Your task to perform on an android device: Go to notification settings Image 0: 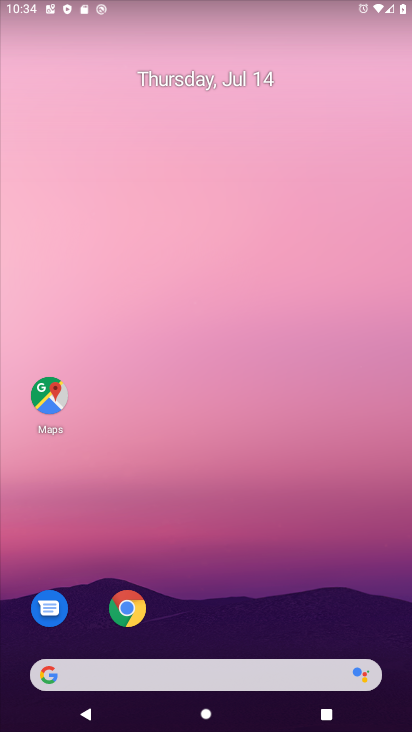
Step 0: drag from (254, 706) to (232, 285)
Your task to perform on an android device: Go to notification settings Image 1: 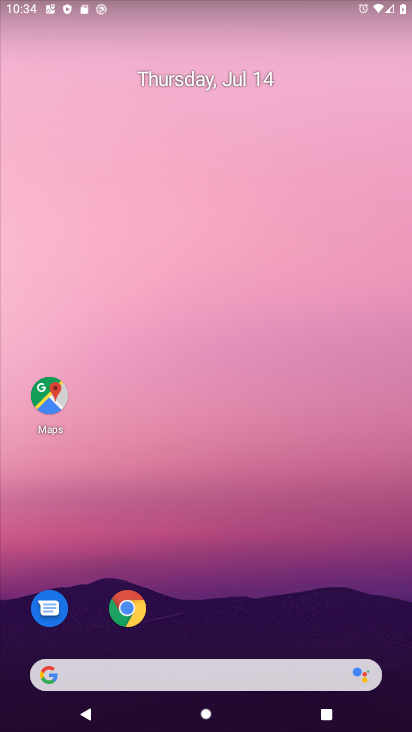
Step 1: drag from (245, 721) to (237, 186)
Your task to perform on an android device: Go to notification settings Image 2: 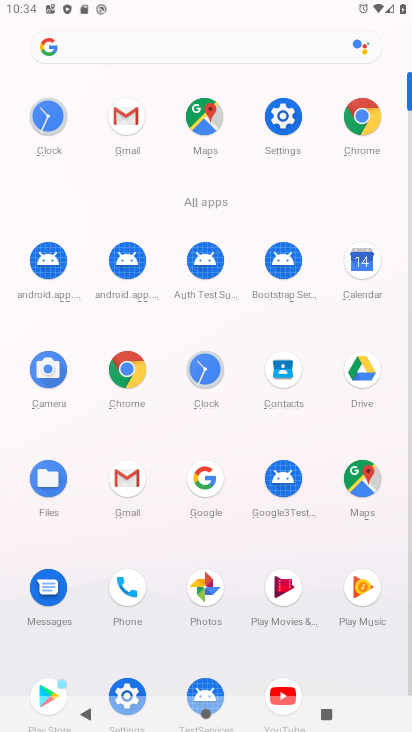
Step 2: click (288, 123)
Your task to perform on an android device: Go to notification settings Image 3: 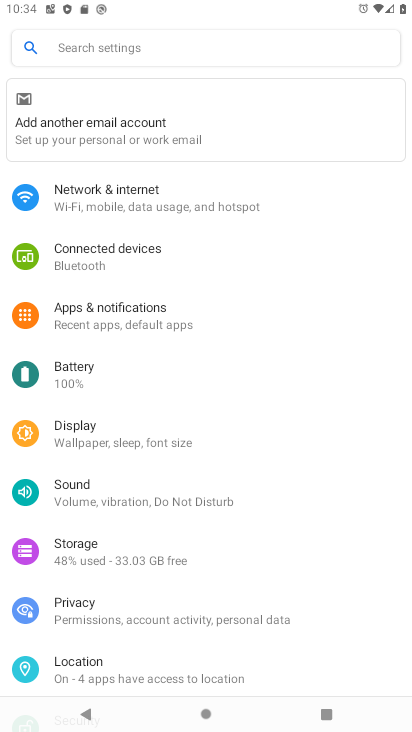
Step 3: click (80, 491)
Your task to perform on an android device: Go to notification settings Image 4: 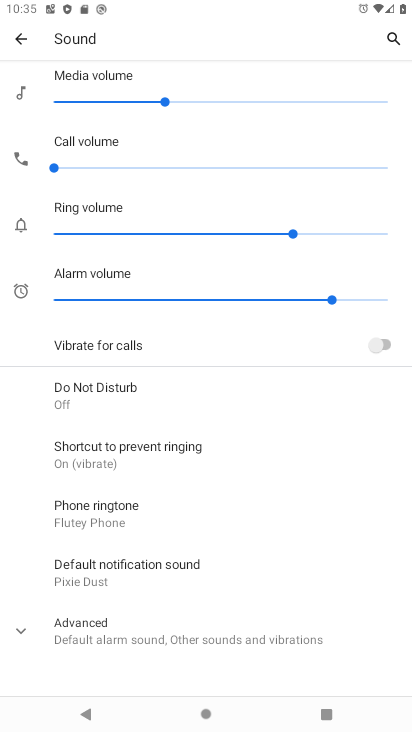
Step 4: task complete